Your task to perform on an android device: turn smart compose on in the gmail app Image 0: 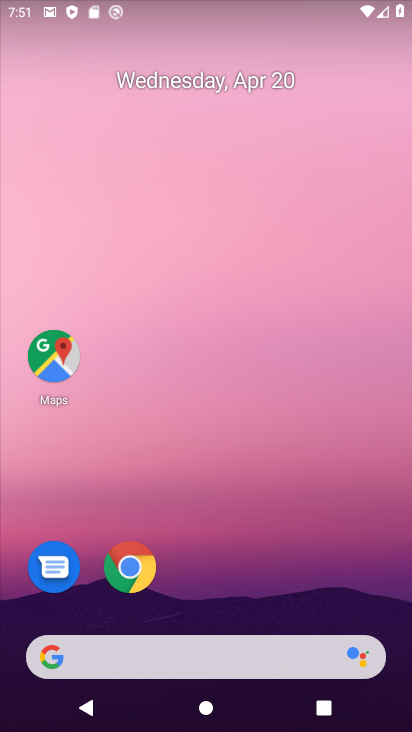
Step 0: drag from (281, 647) to (256, 92)
Your task to perform on an android device: turn smart compose on in the gmail app Image 1: 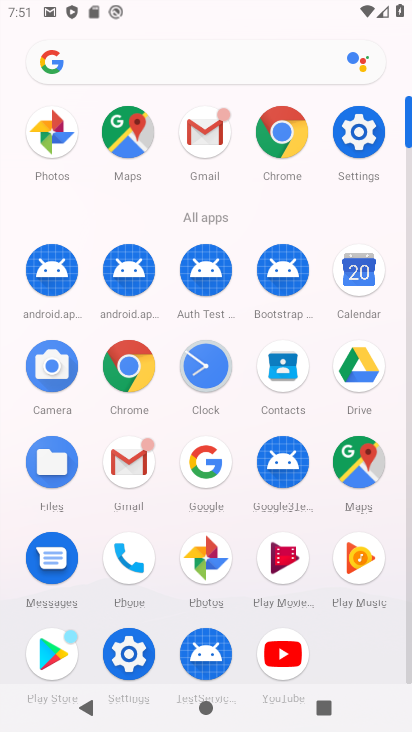
Step 1: click (210, 139)
Your task to perform on an android device: turn smart compose on in the gmail app Image 2: 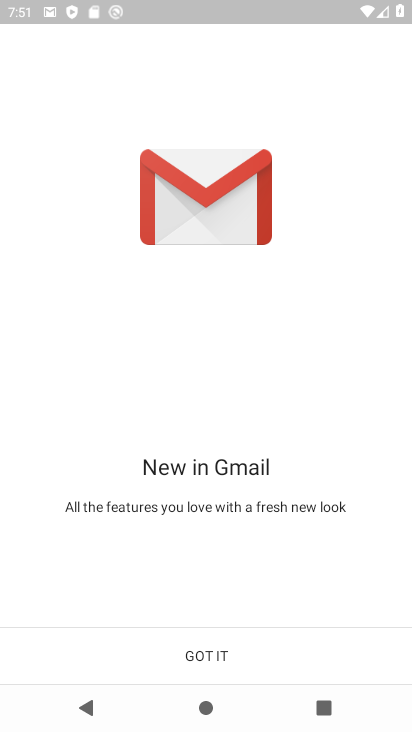
Step 2: drag from (231, 664) to (240, 544)
Your task to perform on an android device: turn smart compose on in the gmail app Image 3: 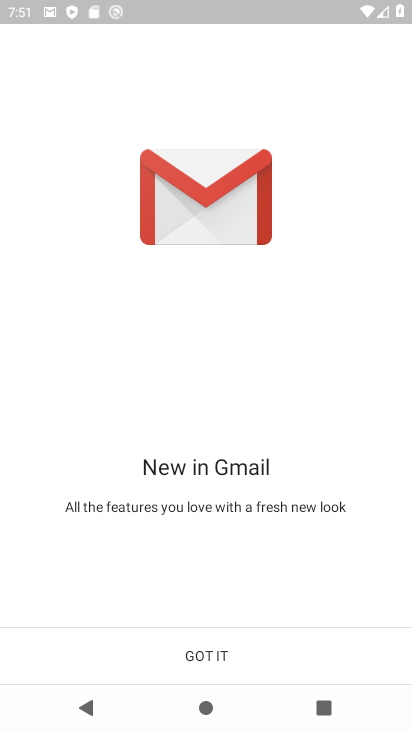
Step 3: click (222, 645)
Your task to perform on an android device: turn smart compose on in the gmail app Image 4: 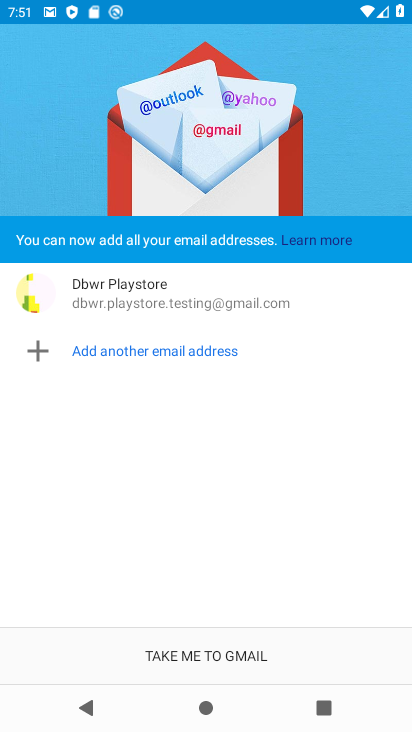
Step 4: click (234, 654)
Your task to perform on an android device: turn smart compose on in the gmail app Image 5: 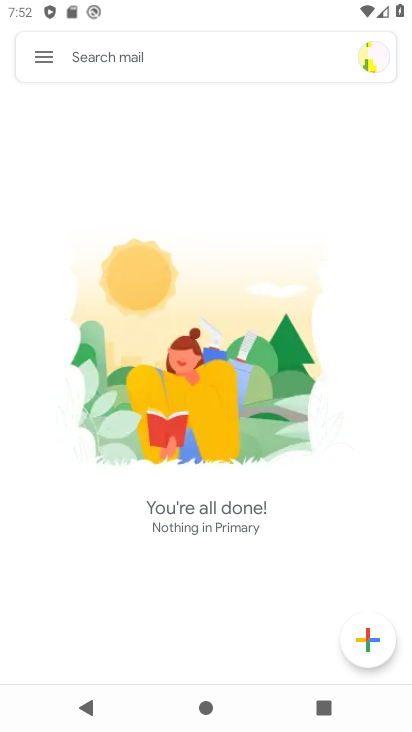
Step 5: click (35, 56)
Your task to perform on an android device: turn smart compose on in the gmail app Image 6: 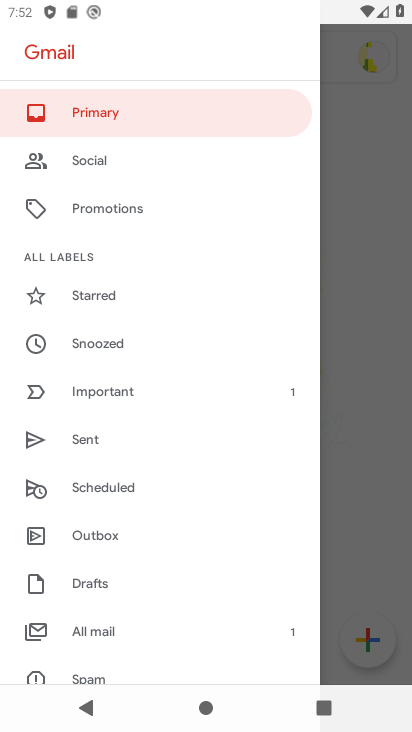
Step 6: drag from (87, 637) to (171, 189)
Your task to perform on an android device: turn smart compose on in the gmail app Image 7: 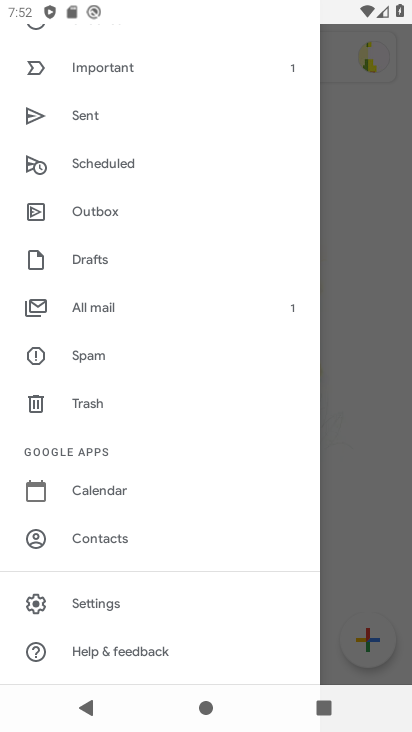
Step 7: click (102, 607)
Your task to perform on an android device: turn smart compose on in the gmail app Image 8: 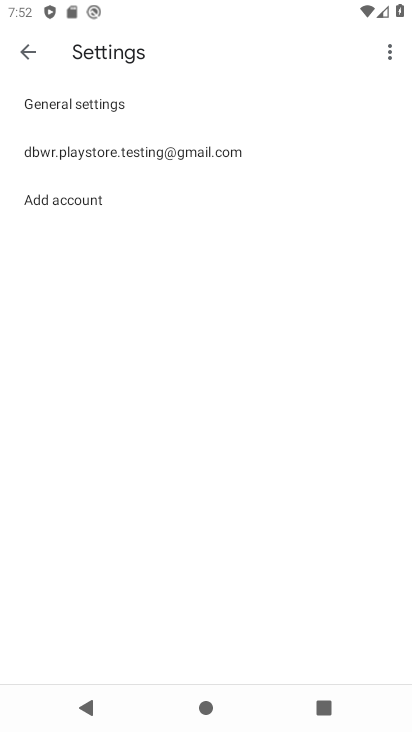
Step 8: click (127, 154)
Your task to perform on an android device: turn smart compose on in the gmail app Image 9: 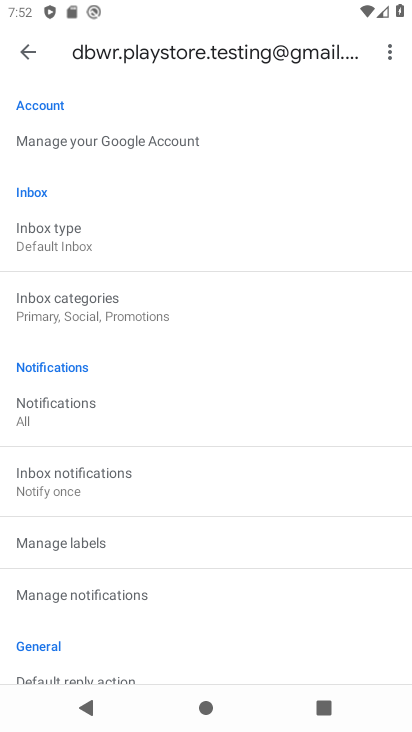
Step 9: task complete